Your task to perform on an android device: Set the phone to "Do not disturb". Image 0: 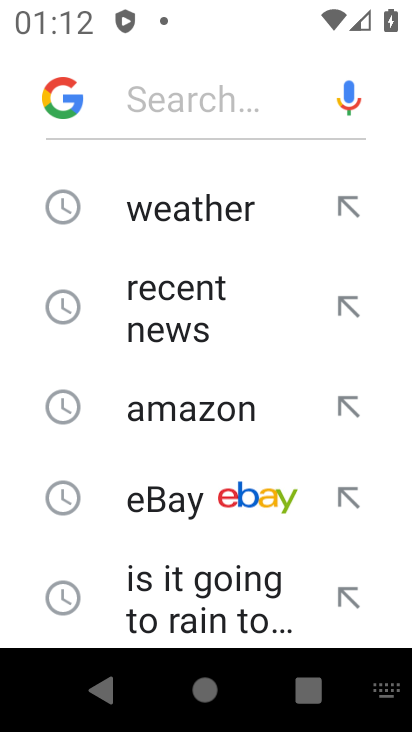
Step 0: drag from (200, 11) to (205, 627)
Your task to perform on an android device: Set the phone to "Do not disturb". Image 1: 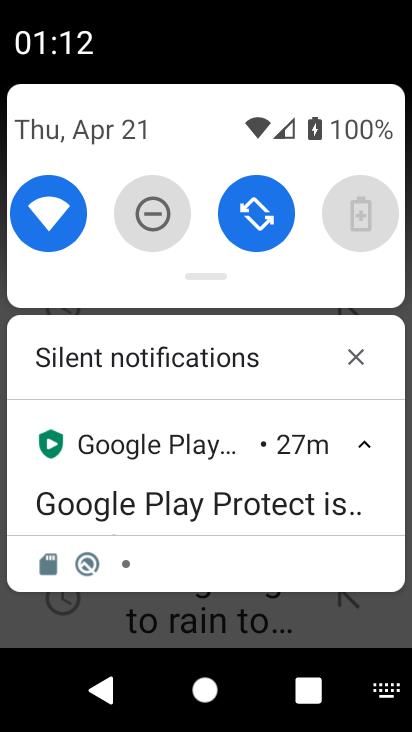
Step 1: click (172, 226)
Your task to perform on an android device: Set the phone to "Do not disturb". Image 2: 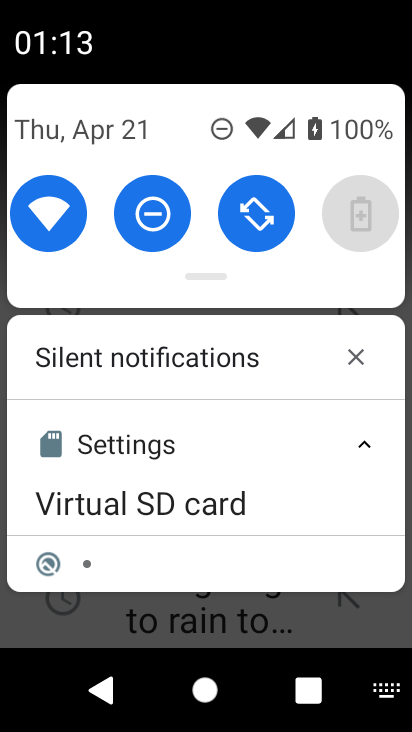
Step 2: task complete